Your task to perform on an android device: toggle improve location accuracy Image 0: 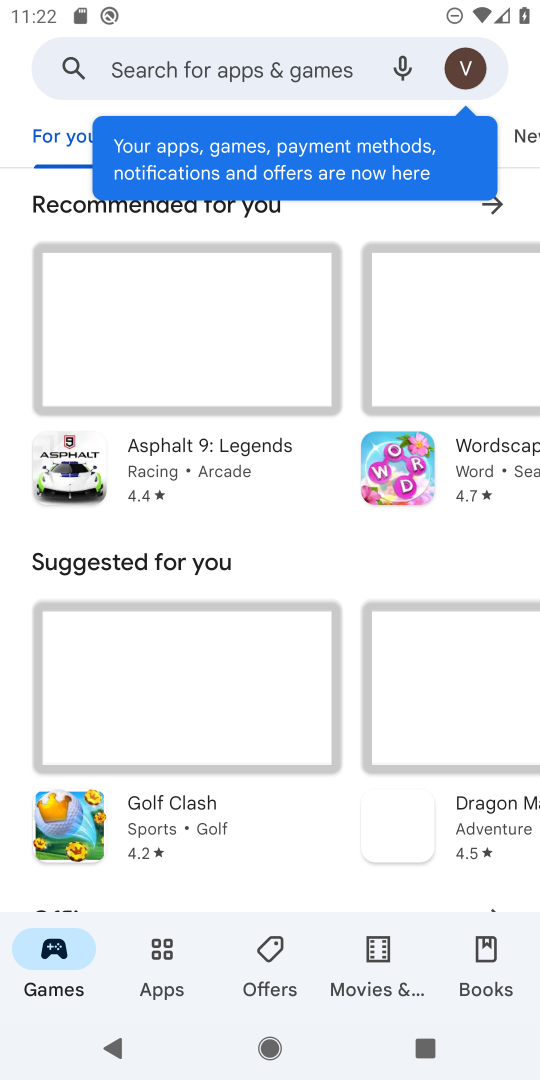
Step 0: press back button
Your task to perform on an android device: toggle improve location accuracy Image 1: 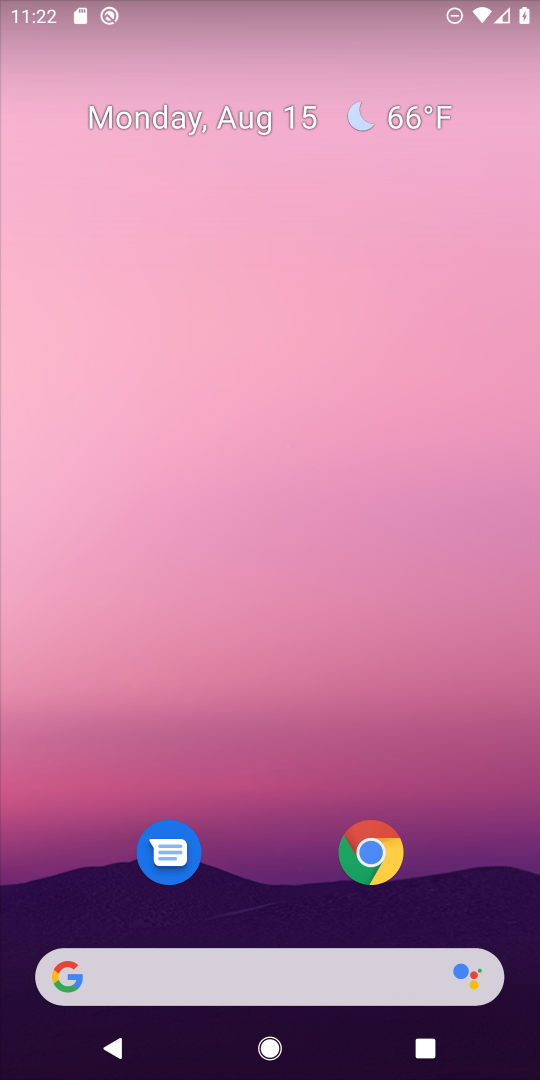
Step 1: drag from (303, 794) to (416, 30)
Your task to perform on an android device: toggle improve location accuracy Image 2: 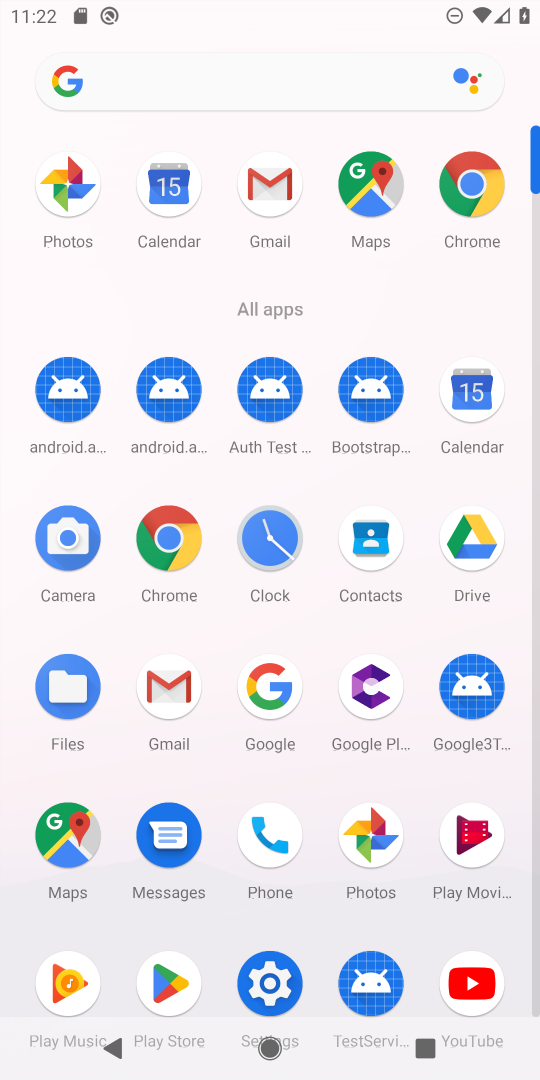
Step 2: click (269, 985)
Your task to perform on an android device: toggle improve location accuracy Image 3: 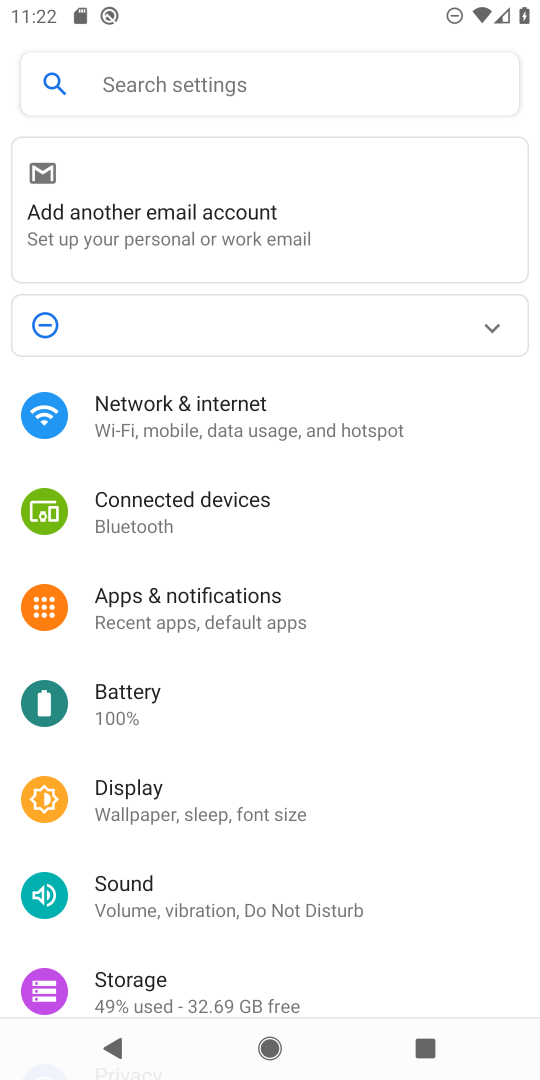
Step 3: drag from (227, 921) to (395, 231)
Your task to perform on an android device: toggle improve location accuracy Image 4: 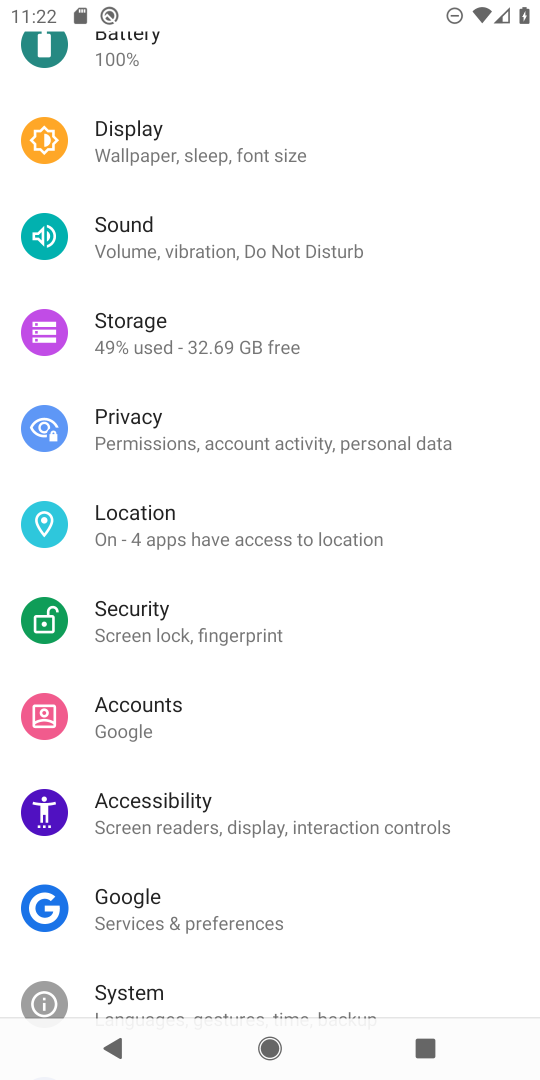
Step 4: click (198, 537)
Your task to perform on an android device: toggle improve location accuracy Image 5: 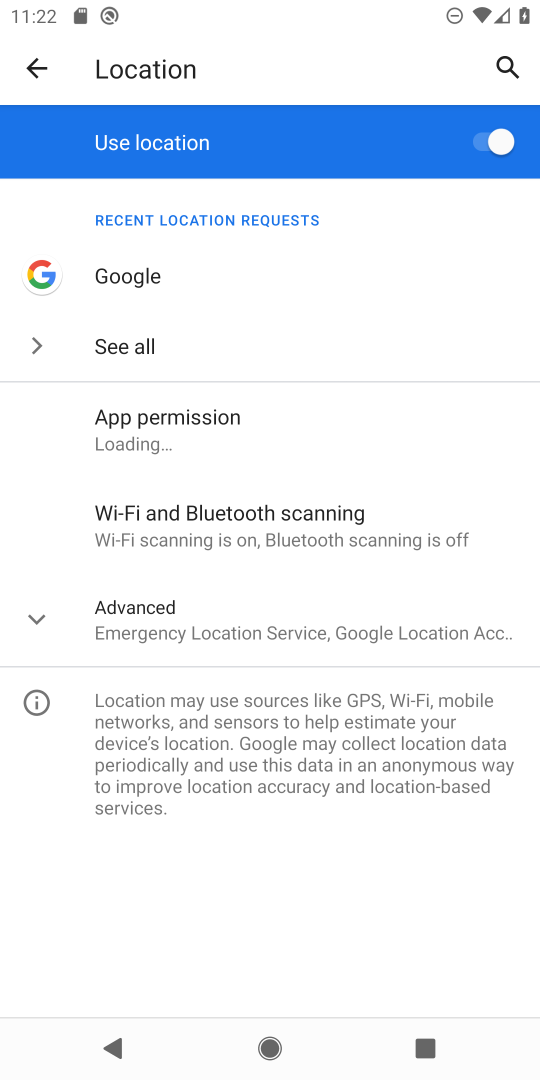
Step 5: click (197, 627)
Your task to perform on an android device: toggle improve location accuracy Image 6: 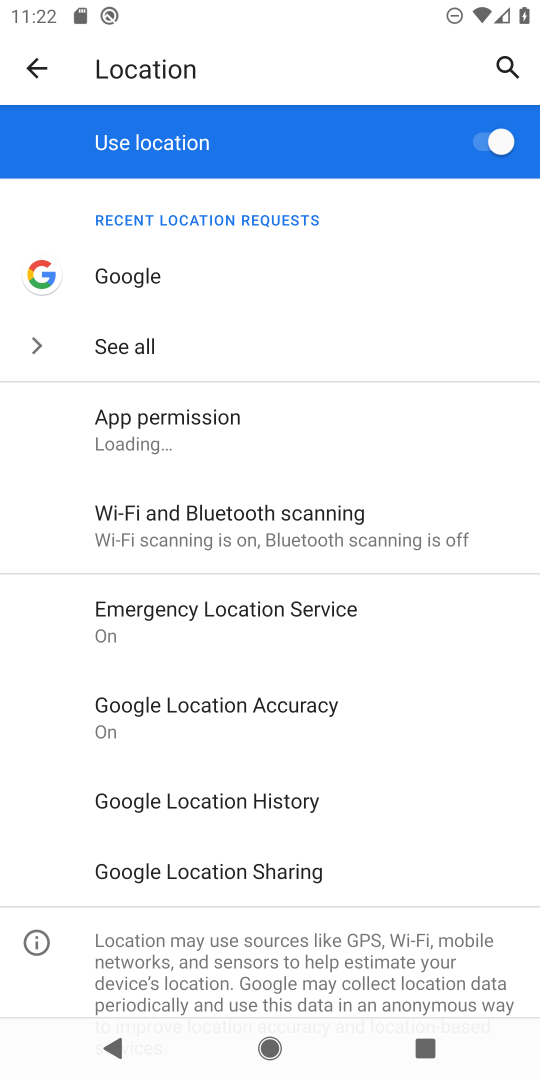
Step 6: click (222, 704)
Your task to perform on an android device: toggle improve location accuracy Image 7: 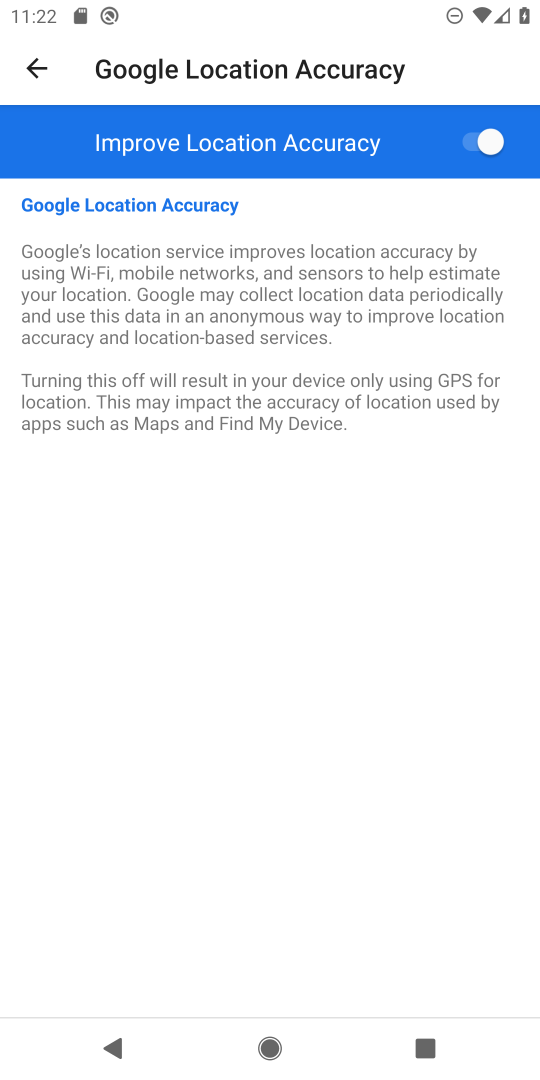
Step 7: click (488, 137)
Your task to perform on an android device: toggle improve location accuracy Image 8: 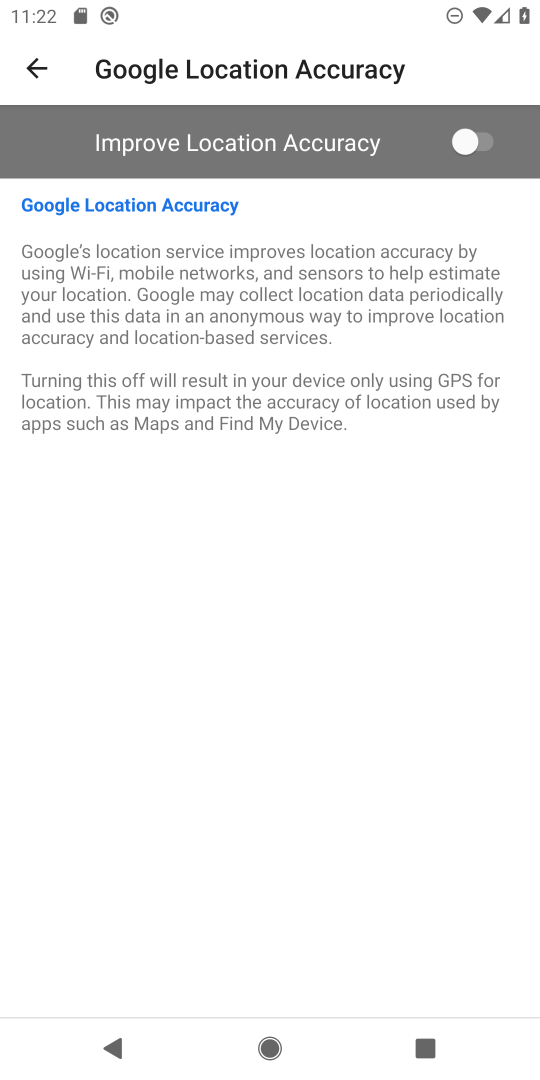
Step 8: task complete